Your task to perform on an android device: star an email in the gmail app Image 0: 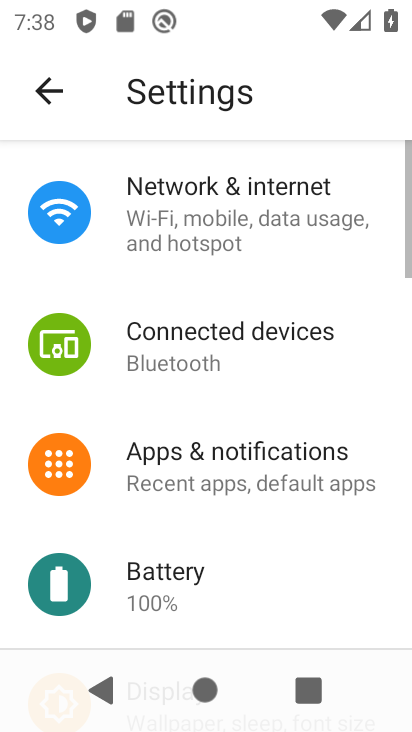
Step 0: press home button
Your task to perform on an android device: star an email in the gmail app Image 1: 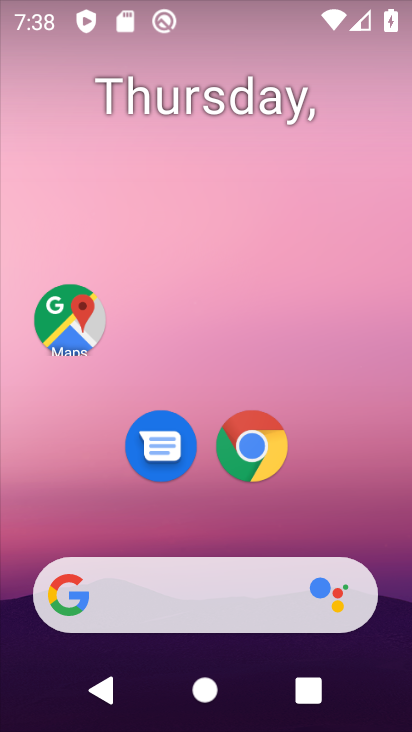
Step 1: drag from (300, 523) to (223, 63)
Your task to perform on an android device: star an email in the gmail app Image 2: 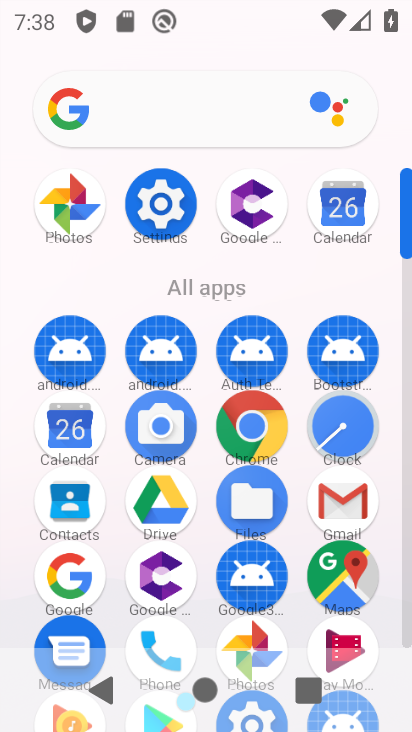
Step 2: click (333, 502)
Your task to perform on an android device: star an email in the gmail app Image 3: 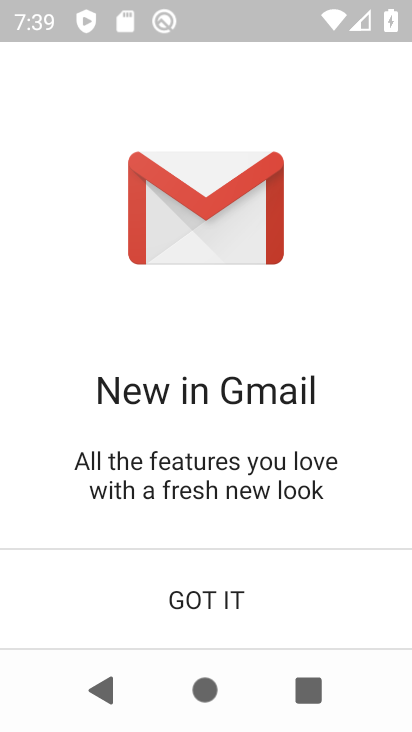
Step 3: click (237, 593)
Your task to perform on an android device: star an email in the gmail app Image 4: 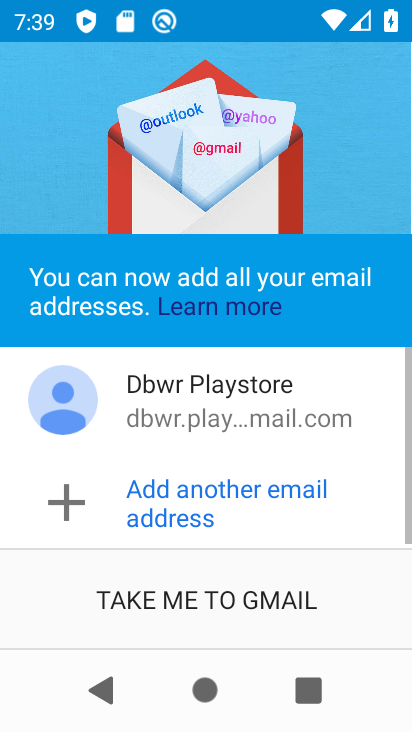
Step 4: click (268, 603)
Your task to perform on an android device: star an email in the gmail app Image 5: 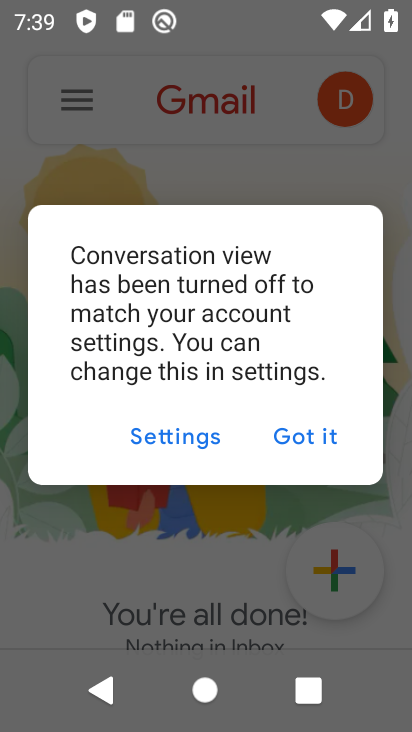
Step 5: click (316, 439)
Your task to perform on an android device: star an email in the gmail app Image 6: 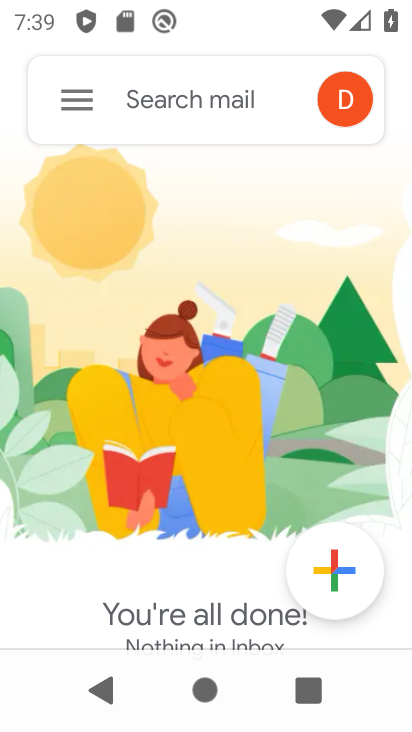
Step 6: click (82, 101)
Your task to perform on an android device: star an email in the gmail app Image 7: 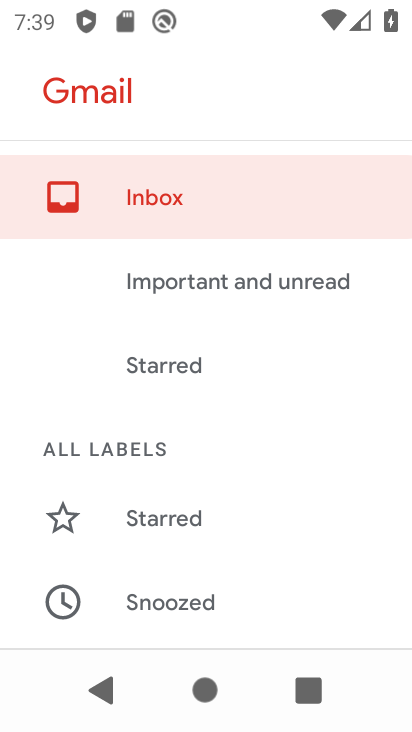
Step 7: click (186, 205)
Your task to perform on an android device: star an email in the gmail app Image 8: 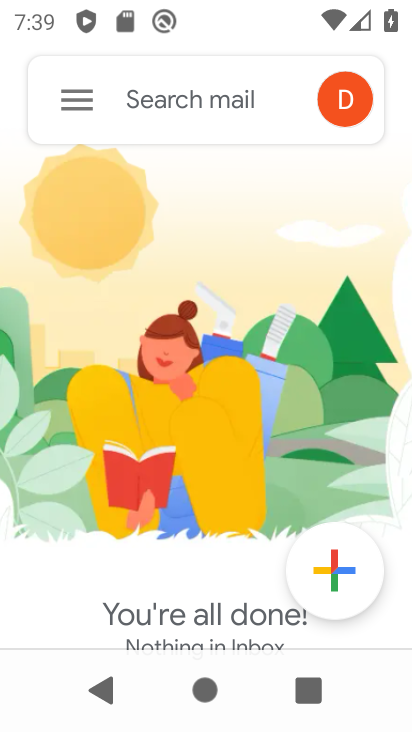
Step 8: task complete